Your task to perform on an android device: turn off notifications in google photos Image 0: 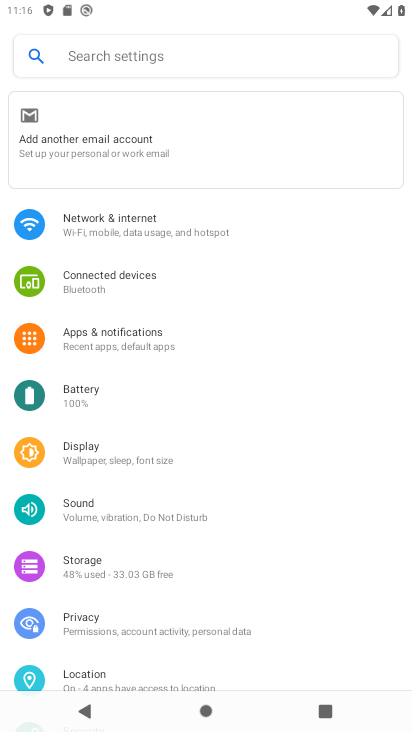
Step 0: press home button
Your task to perform on an android device: turn off notifications in google photos Image 1: 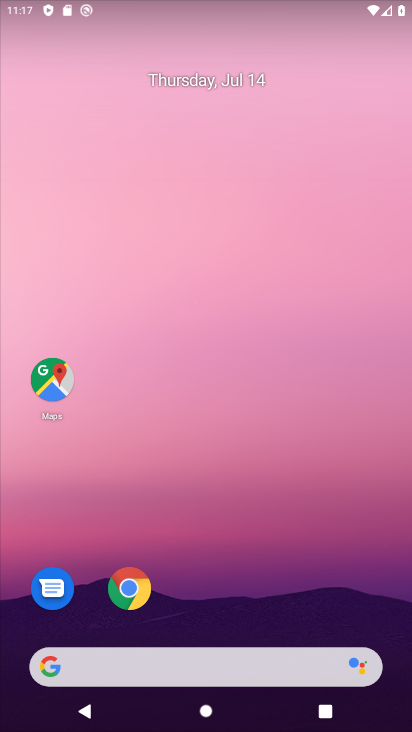
Step 1: drag from (214, 632) to (214, 280)
Your task to perform on an android device: turn off notifications in google photos Image 2: 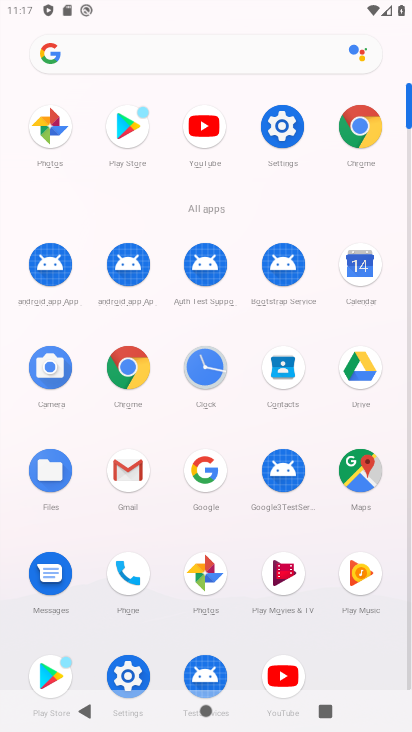
Step 2: click (201, 582)
Your task to perform on an android device: turn off notifications in google photos Image 3: 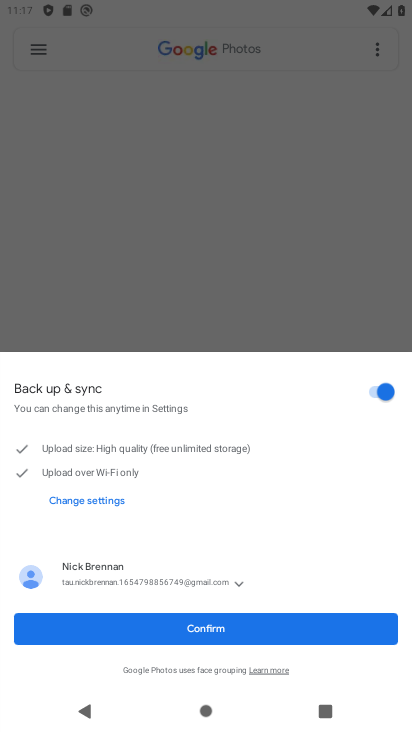
Step 3: click (263, 636)
Your task to perform on an android device: turn off notifications in google photos Image 4: 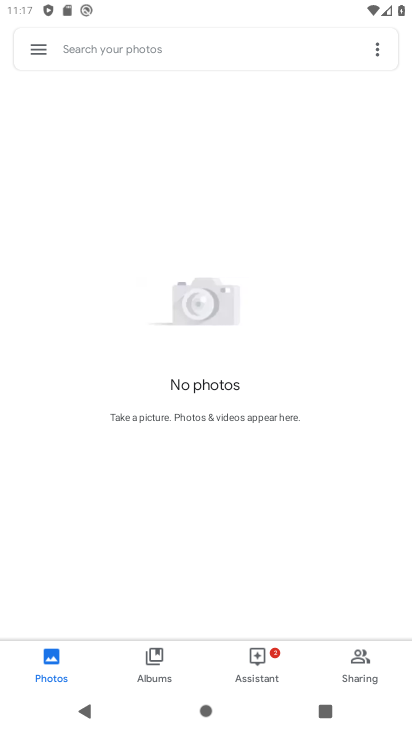
Step 4: click (32, 46)
Your task to perform on an android device: turn off notifications in google photos Image 5: 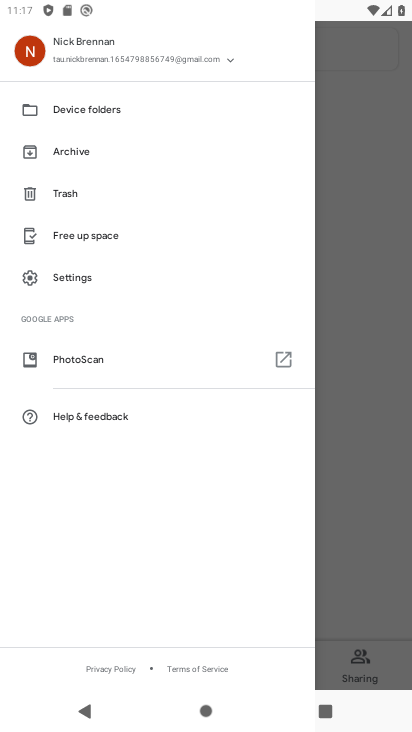
Step 5: click (80, 277)
Your task to perform on an android device: turn off notifications in google photos Image 6: 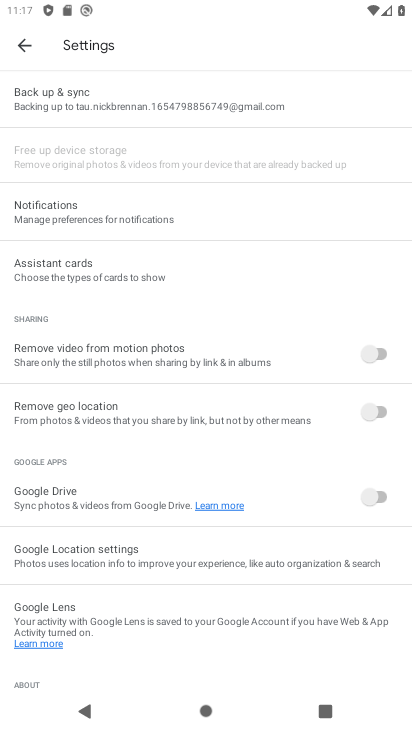
Step 6: click (78, 210)
Your task to perform on an android device: turn off notifications in google photos Image 7: 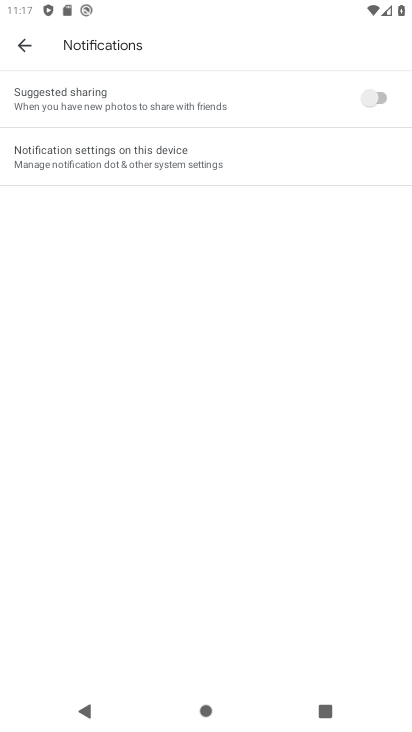
Step 7: click (279, 158)
Your task to perform on an android device: turn off notifications in google photos Image 8: 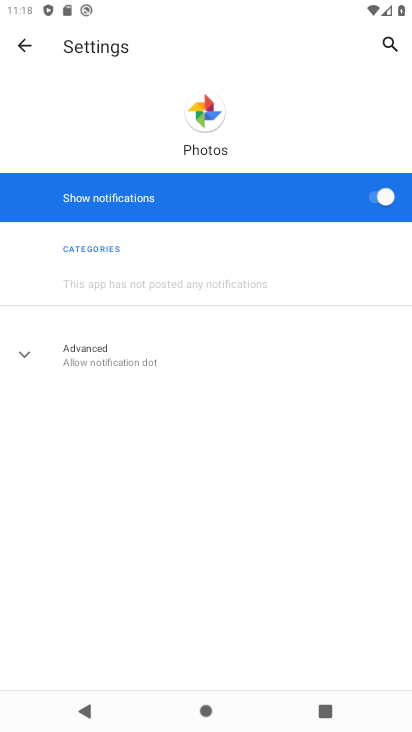
Step 8: click (338, 198)
Your task to perform on an android device: turn off notifications in google photos Image 9: 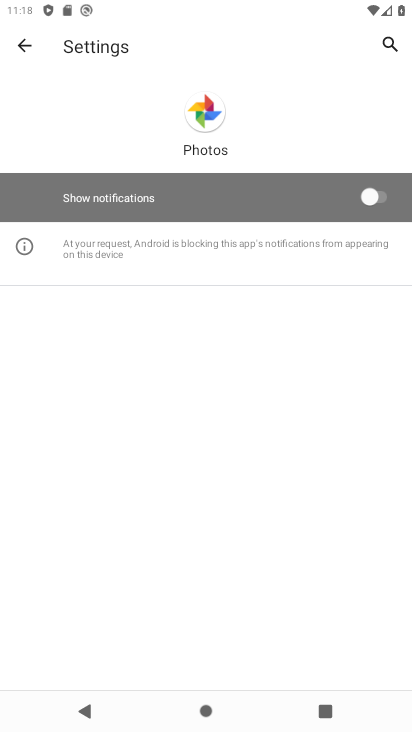
Step 9: task complete